Your task to perform on an android device: Open Android settings Image 0: 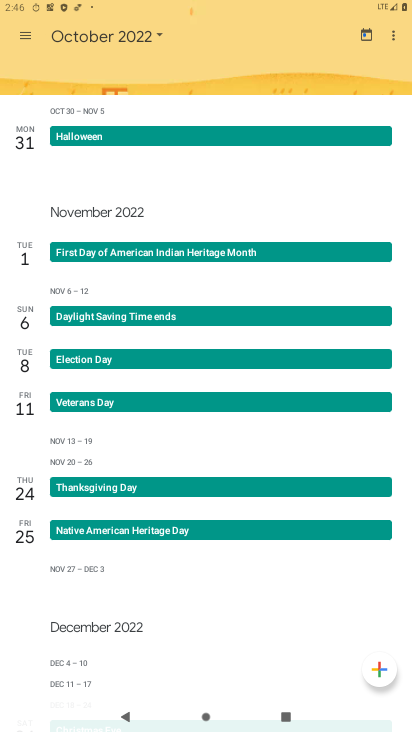
Step 0: press home button
Your task to perform on an android device: Open Android settings Image 1: 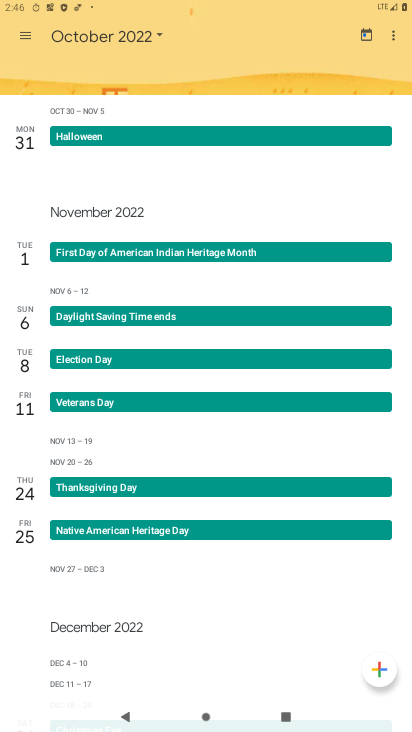
Step 1: drag from (230, 567) to (247, 284)
Your task to perform on an android device: Open Android settings Image 2: 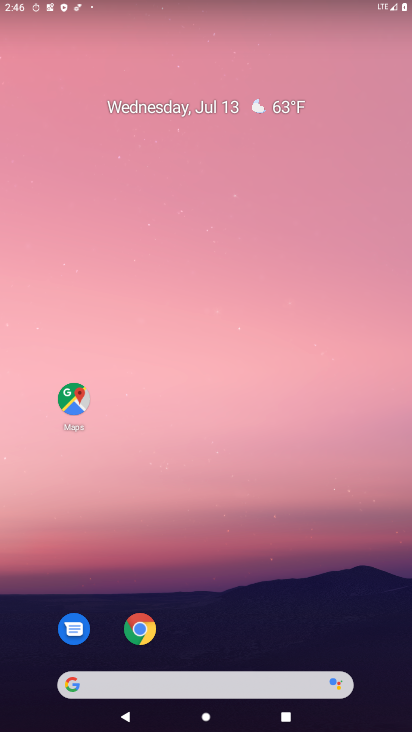
Step 2: drag from (181, 625) to (235, 328)
Your task to perform on an android device: Open Android settings Image 3: 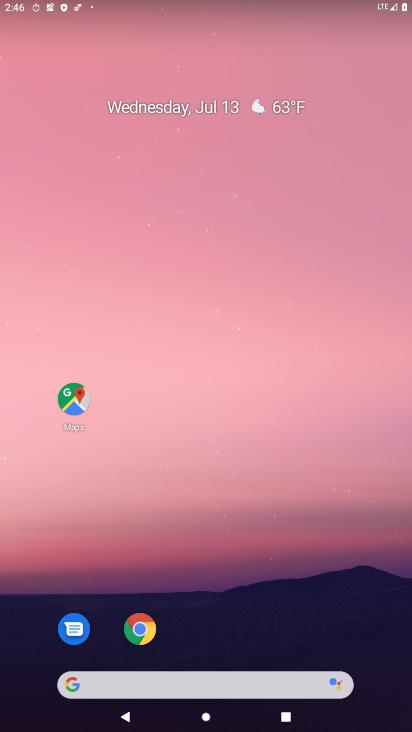
Step 3: drag from (166, 645) to (220, 269)
Your task to perform on an android device: Open Android settings Image 4: 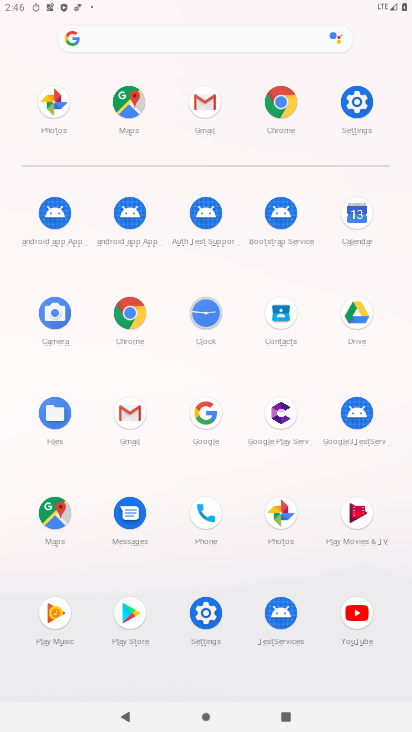
Step 4: click (353, 99)
Your task to perform on an android device: Open Android settings Image 5: 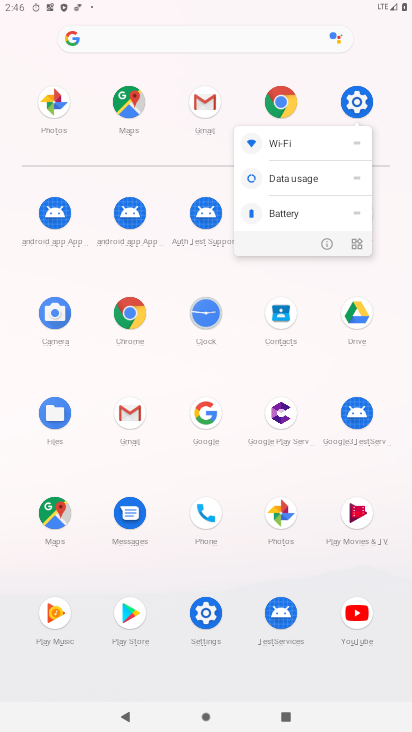
Step 5: click (324, 238)
Your task to perform on an android device: Open Android settings Image 6: 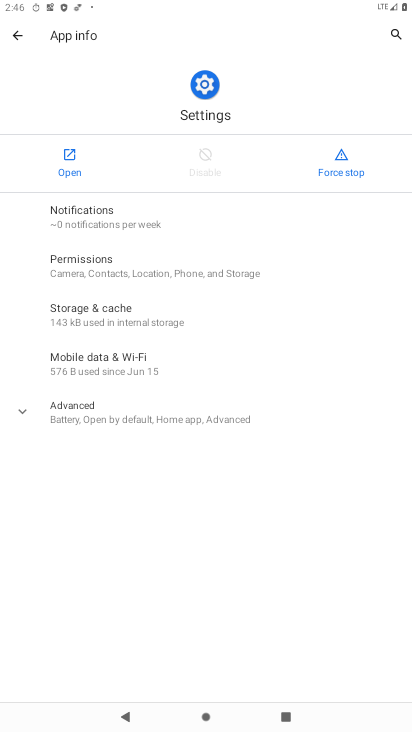
Step 6: click (64, 159)
Your task to perform on an android device: Open Android settings Image 7: 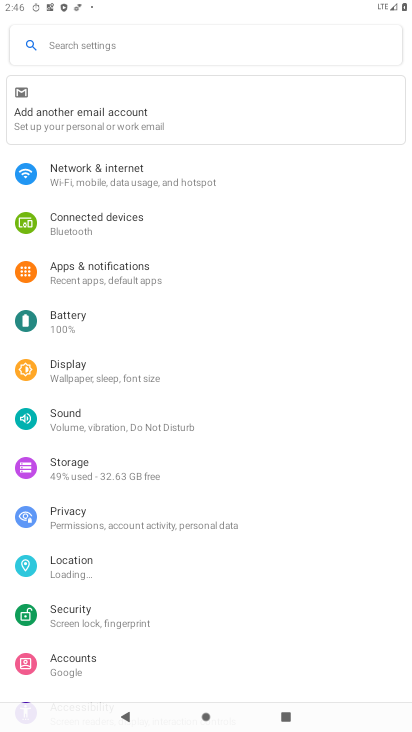
Step 7: drag from (114, 630) to (201, 198)
Your task to perform on an android device: Open Android settings Image 8: 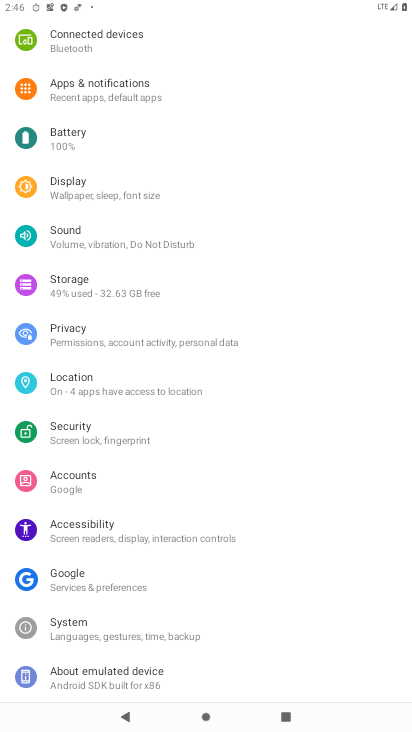
Step 8: drag from (176, 631) to (238, 250)
Your task to perform on an android device: Open Android settings Image 9: 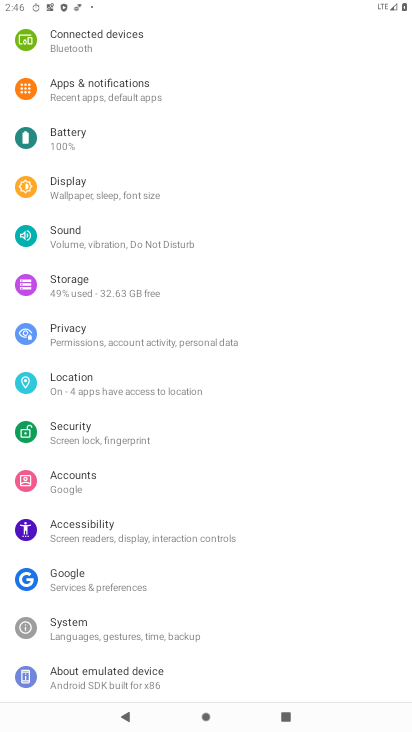
Step 9: click (136, 668)
Your task to perform on an android device: Open Android settings Image 10: 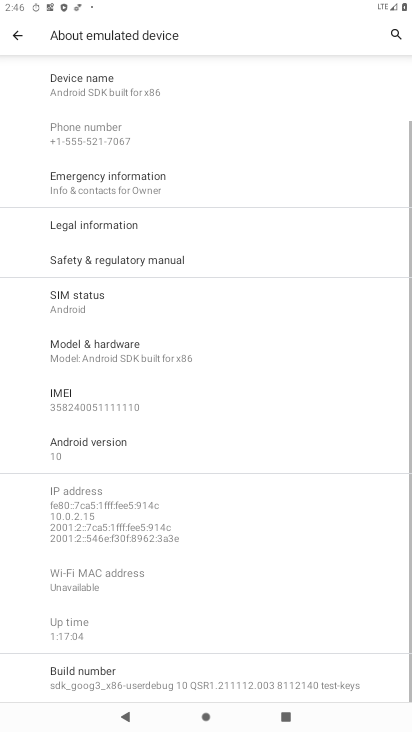
Step 10: drag from (158, 607) to (224, 204)
Your task to perform on an android device: Open Android settings Image 11: 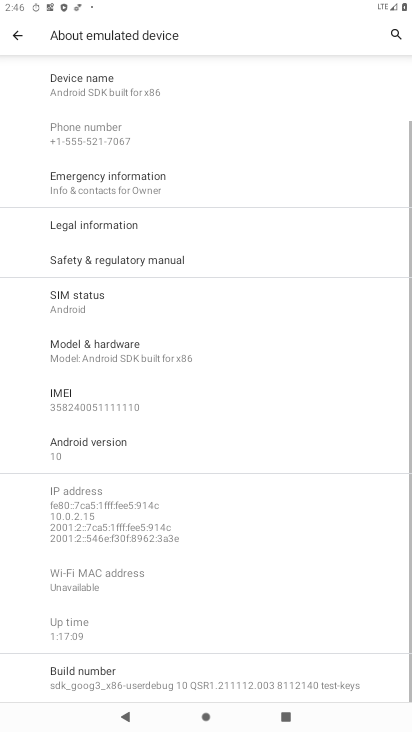
Step 11: click (104, 444)
Your task to perform on an android device: Open Android settings Image 12: 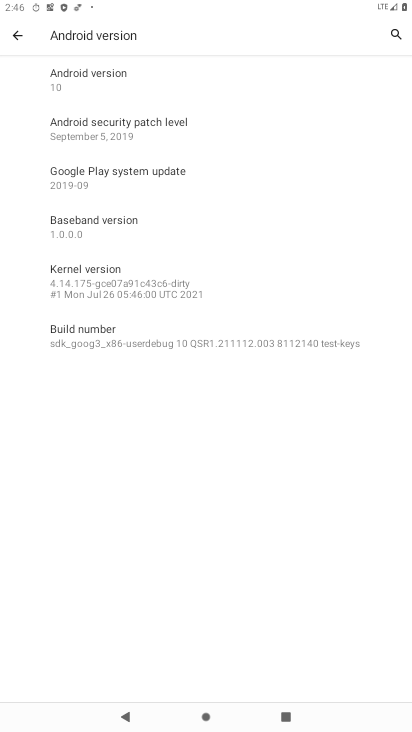
Step 12: task complete